Your task to perform on an android device: Open CNN.com Image 0: 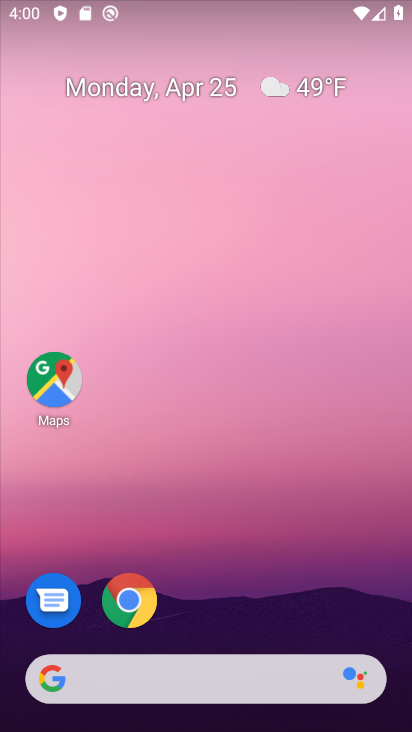
Step 0: click (256, 677)
Your task to perform on an android device: Open CNN.com Image 1: 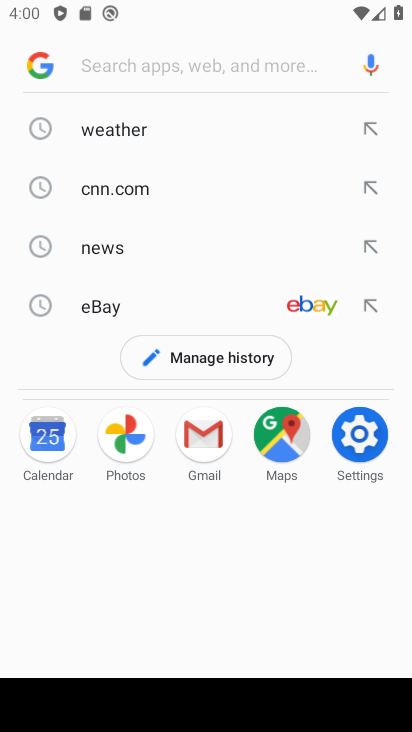
Step 1: click (95, 177)
Your task to perform on an android device: Open CNN.com Image 2: 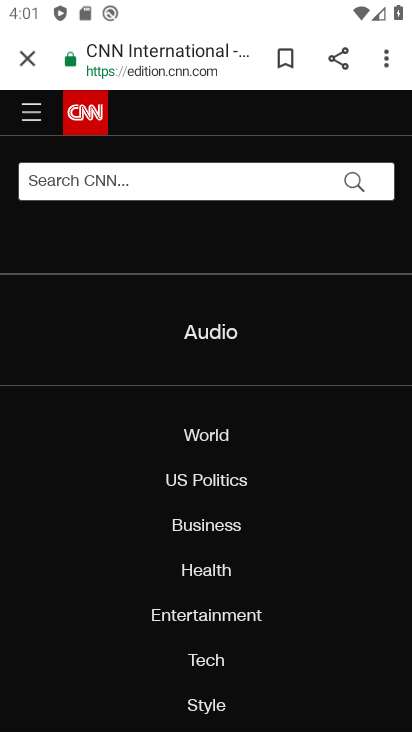
Step 2: task complete